Your task to perform on an android device: toggle notifications settings in the gmail app Image 0: 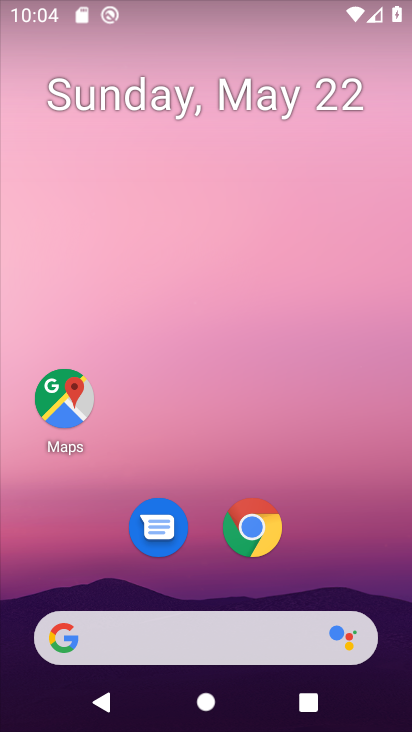
Step 0: drag from (209, 703) to (276, 217)
Your task to perform on an android device: toggle notifications settings in the gmail app Image 1: 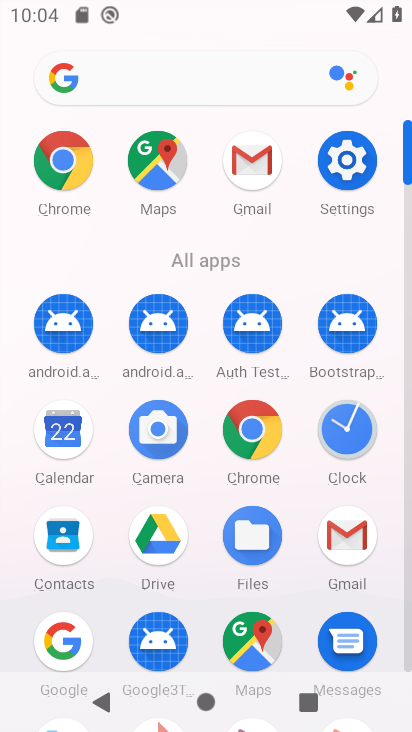
Step 1: click (352, 536)
Your task to perform on an android device: toggle notifications settings in the gmail app Image 2: 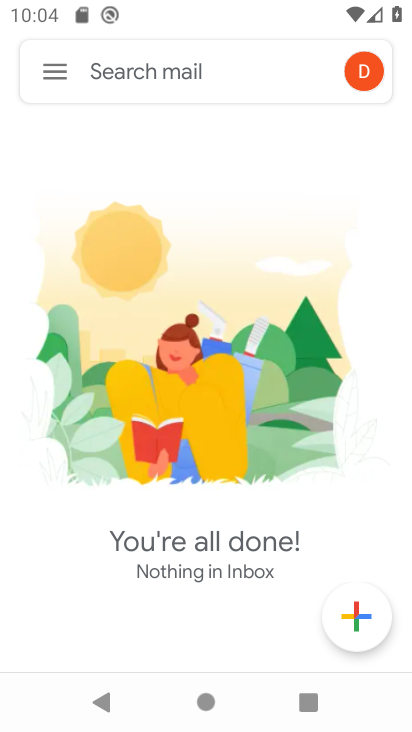
Step 2: click (57, 74)
Your task to perform on an android device: toggle notifications settings in the gmail app Image 3: 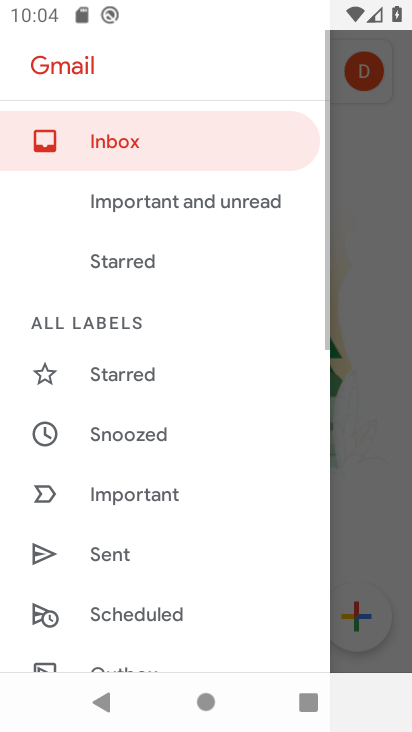
Step 3: drag from (111, 565) to (201, 102)
Your task to perform on an android device: toggle notifications settings in the gmail app Image 4: 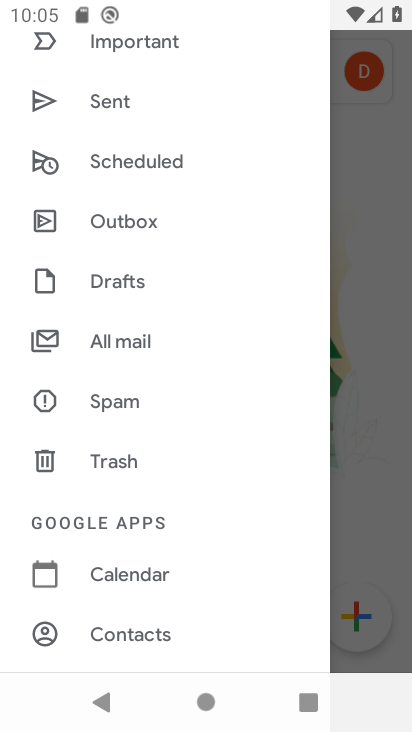
Step 4: drag from (115, 600) to (195, 216)
Your task to perform on an android device: toggle notifications settings in the gmail app Image 5: 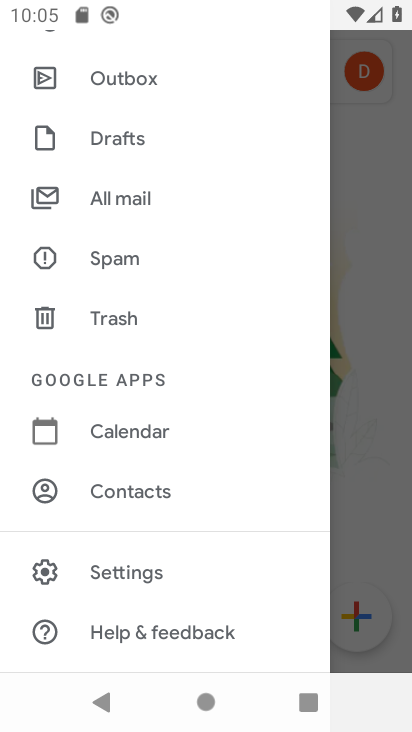
Step 5: click (138, 583)
Your task to perform on an android device: toggle notifications settings in the gmail app Image 6: 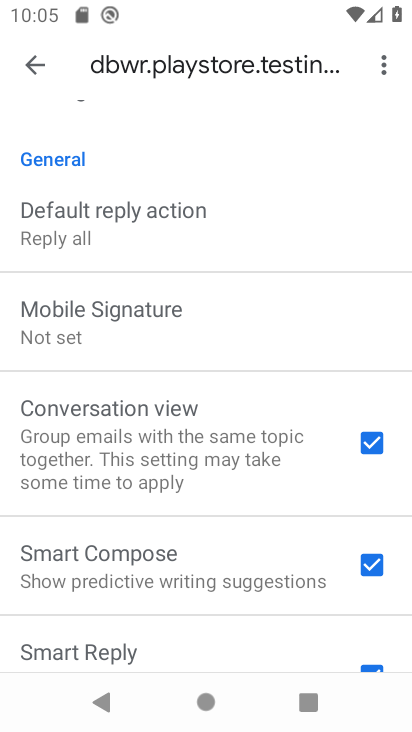
Step 6: drag from (145, 505) to (221, 266)
Your task to perform on an android device: toggle notifications settings in the gmail app Image 7: 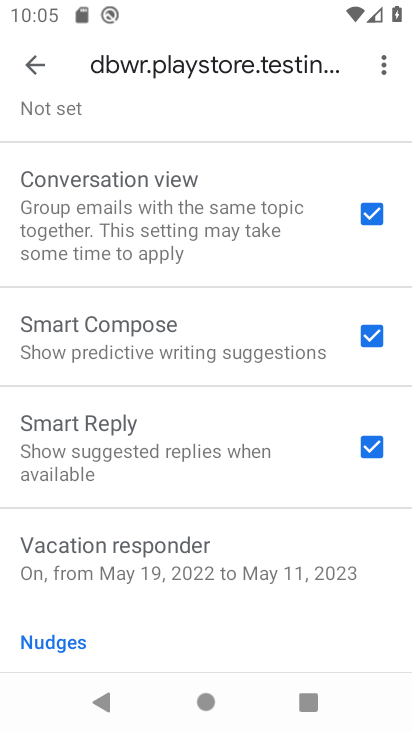
Step 7: click (45, 62)
Your task to perform on an android device: toggle notifications settings in the gmail app Image 8: 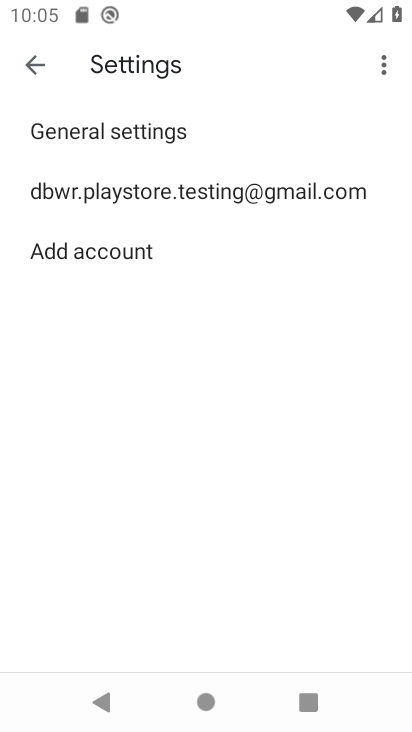
Step 8: click (127, 126)
Your task to perform on an android device: toggle notifications settings in the gmail app Image 9: 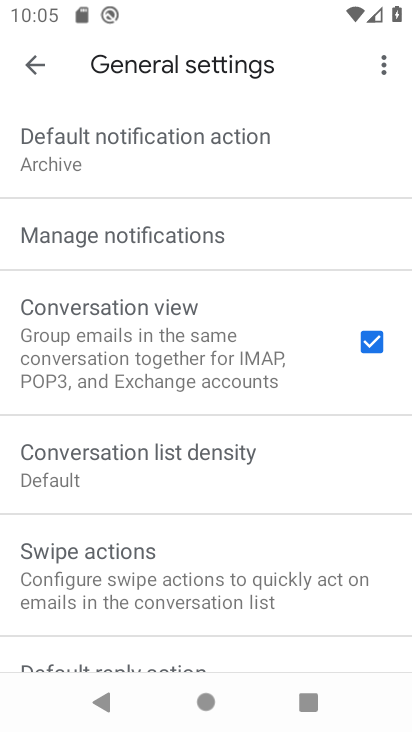
Step 9: click (153, 242)
Your task to perform on an android device: toggle notifications settings in the gmail app Image 10: 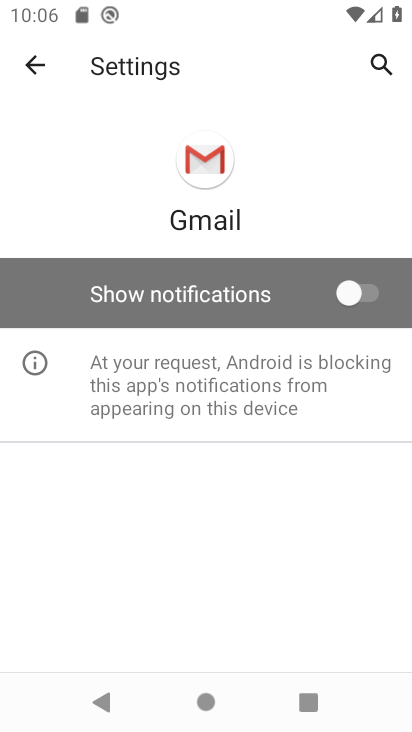
Step 10: click (266, 299)
Your task to perform on an android device: toggle notifications settings in the gmail app Image 11: 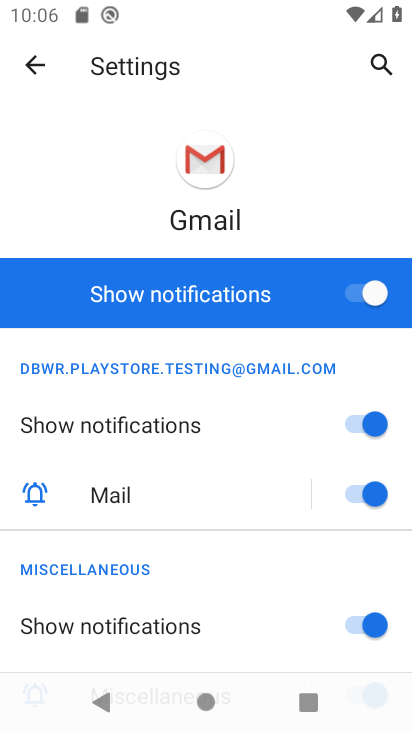
Step 11: task complete